Your task to perform on an android device: set the stopwatch Image 0: 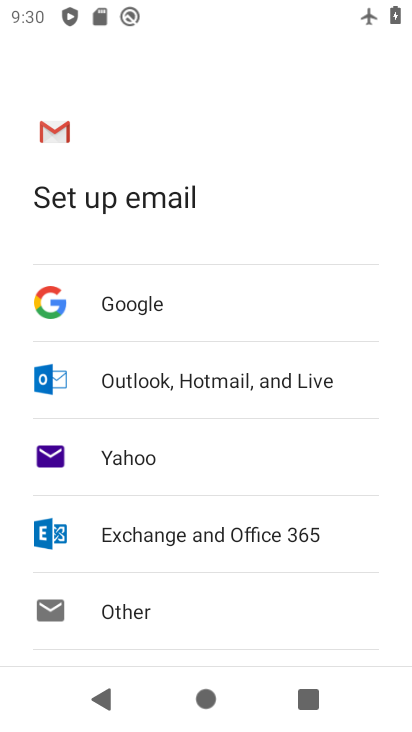
Step 0: press home button
Your task to perform on an android device: set the stopwatch Image 1: 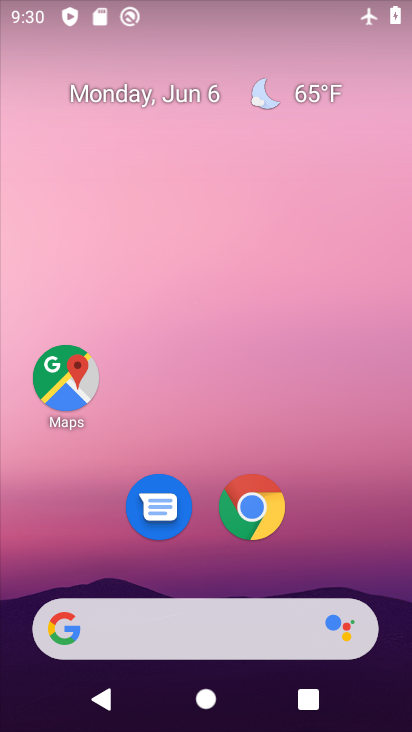
Step 1: drag from (251, 504) to (265, 141)
Your task to perform on an android device: set the stopwatch Image 2: 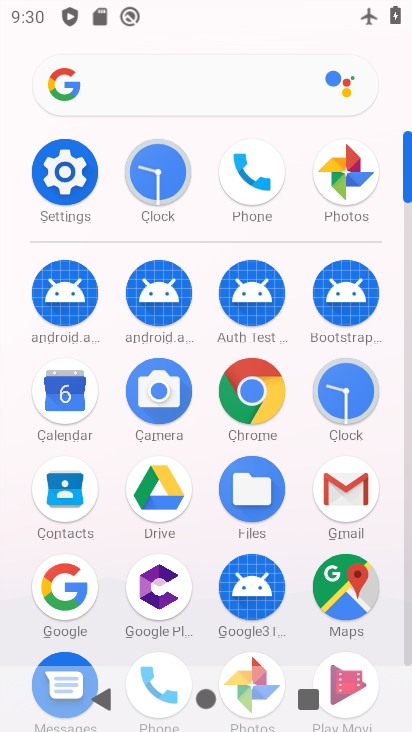
Step 2: click (352, 390)
Your task to perform on an android device: set the stopwatch Image 3: 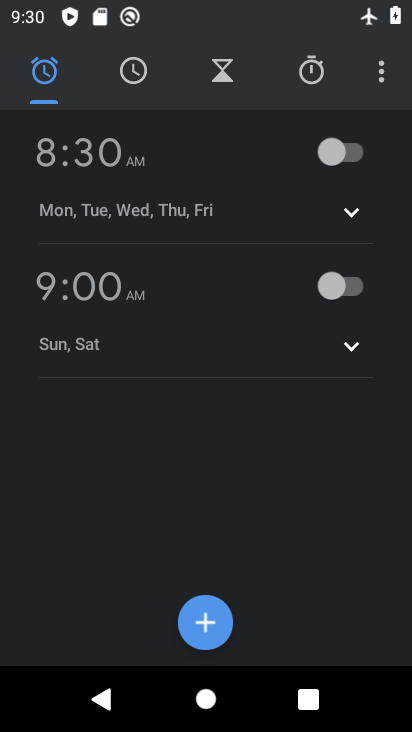
Step 3: click (137, 73)
Your task to perform on an android device: set the stopwatch Image 4: 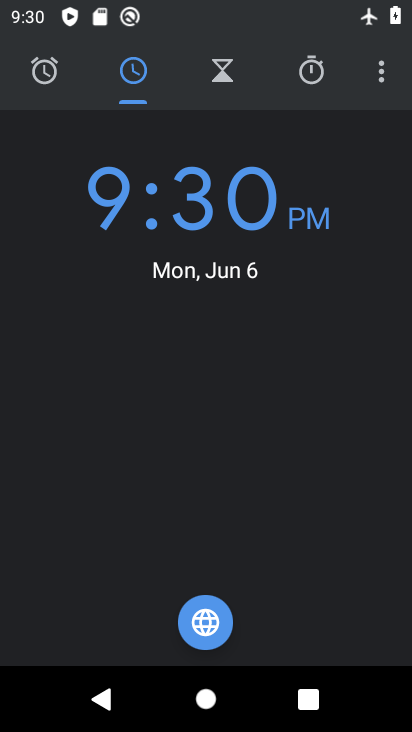
Step 4: click (220, 72)
Your task to perform on an android device: set the stopwatch Image 5: 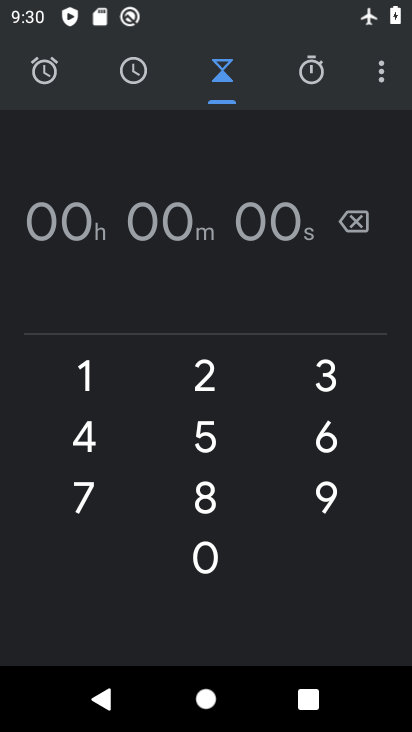
Step 5: click (77, 207)
Your task to perform on an android device: set the stopwatch Image 6: 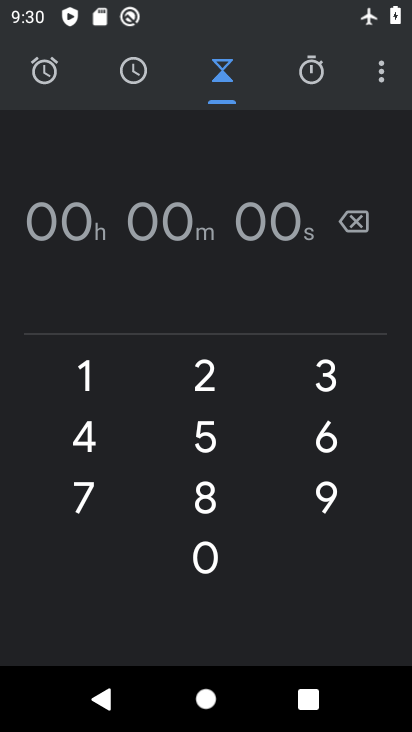
Step 6: type "343436"
Your task to perform on an android device: set the stopwatch Image 7: 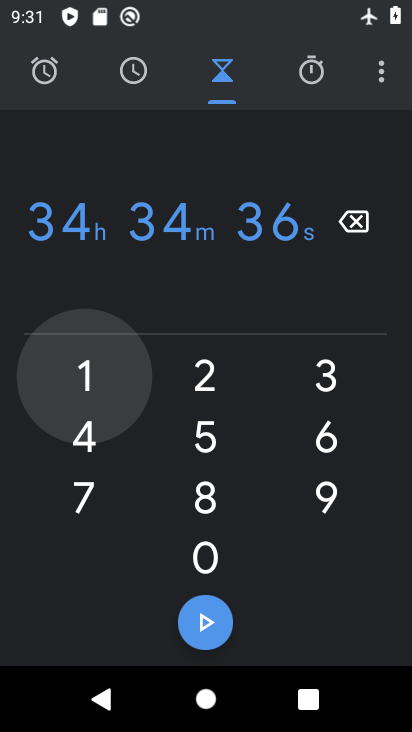
Step 7: click (216, 620)
Your task to perform on an android device: set the stopwatch Image 8: 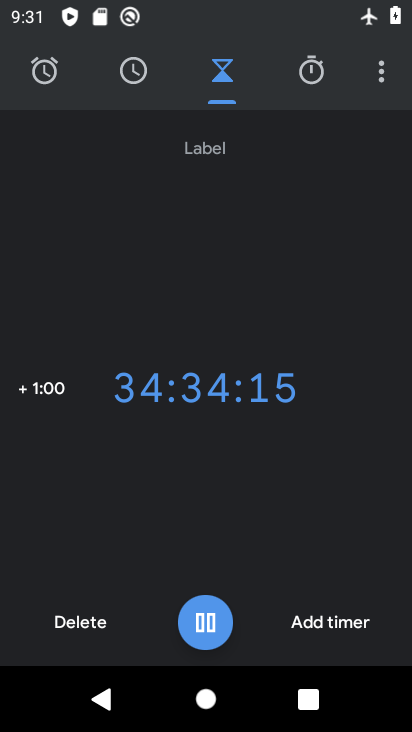
Step 8: task complete